Your task to perform on an android device: install app "ColorNote Notepad Notes" Image 0: 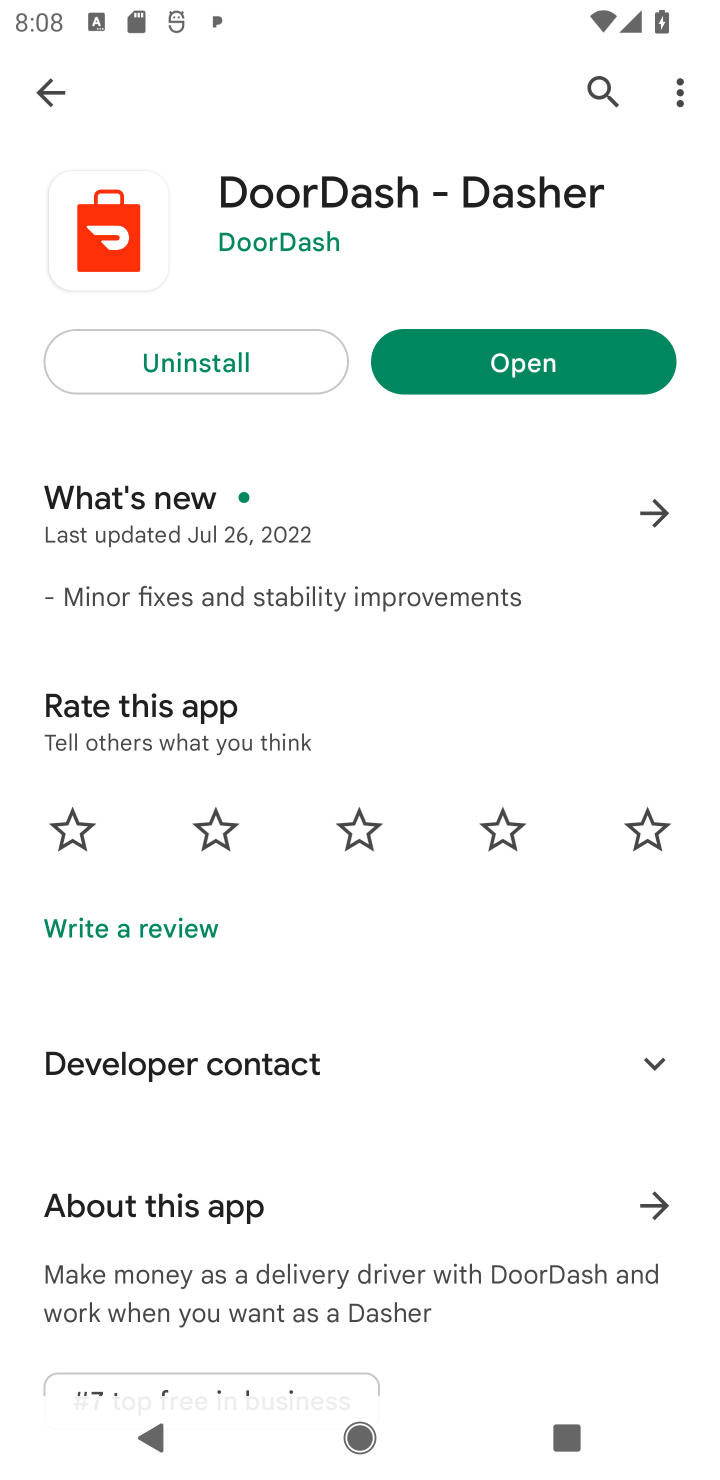
Step 0: press home button
Your task to perform on an android device: install app "ColorNote Notepad Notes" Image 1: 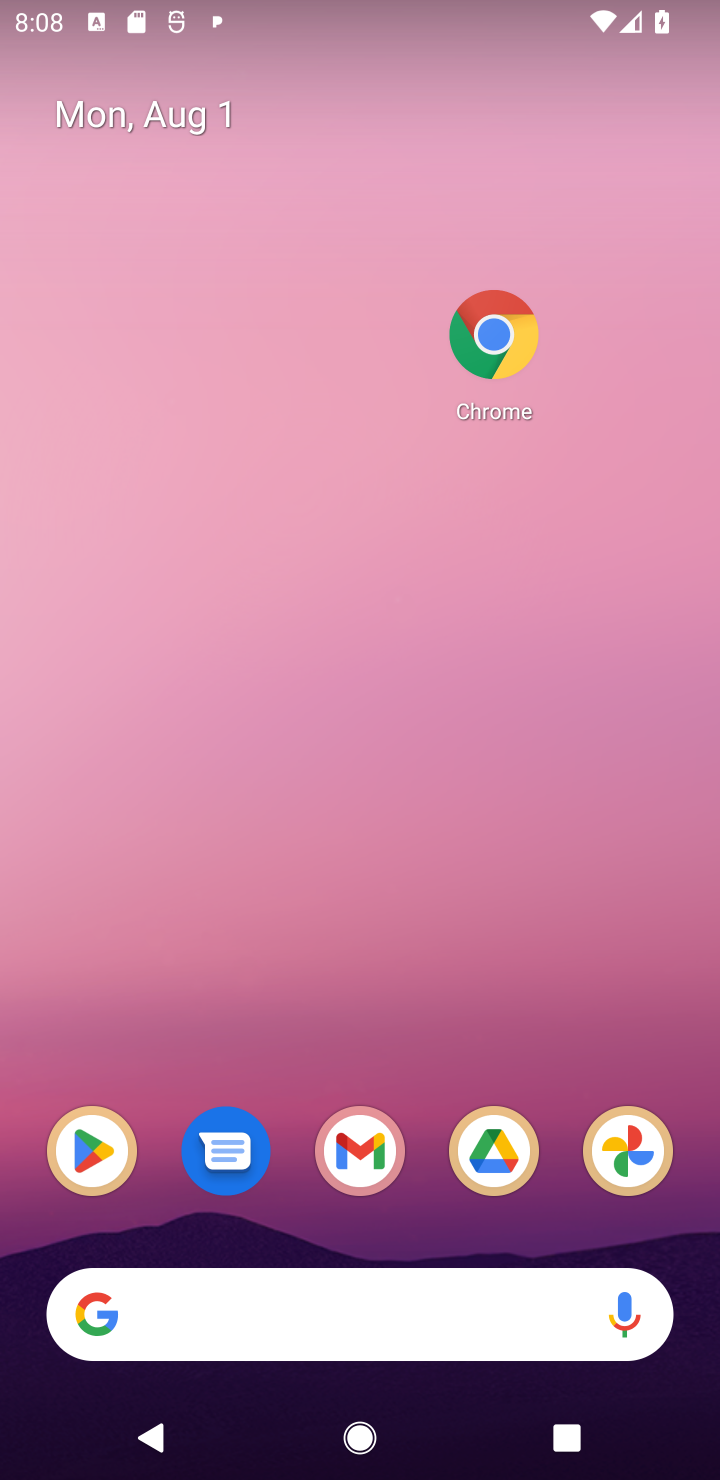
Step 1: click (81, 1147)
Your task to perform on an android device: install app "ColorNote Notepad Notes" Image 2: 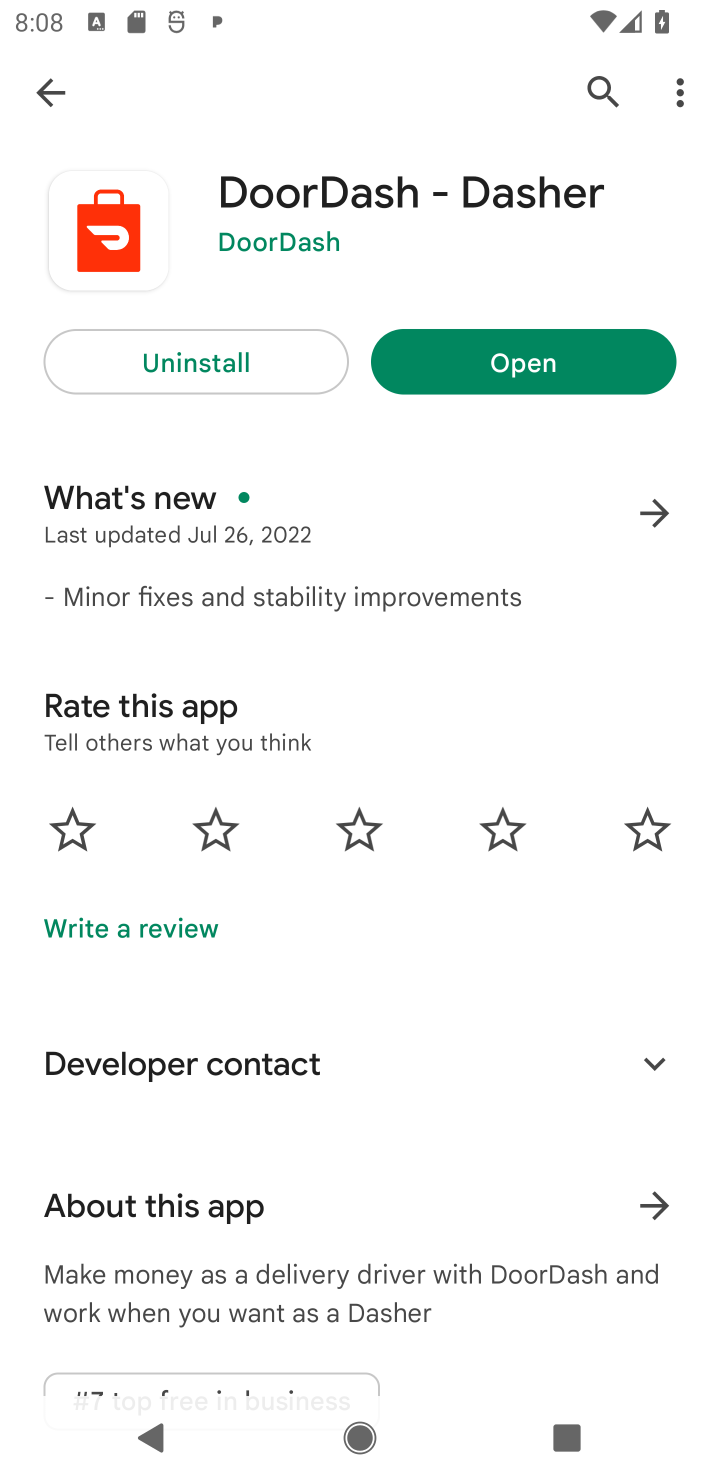
Step 2: click (638, 100)
Your task to perform on an android device: install app "ColorNote Notepad Notes" Image 3: 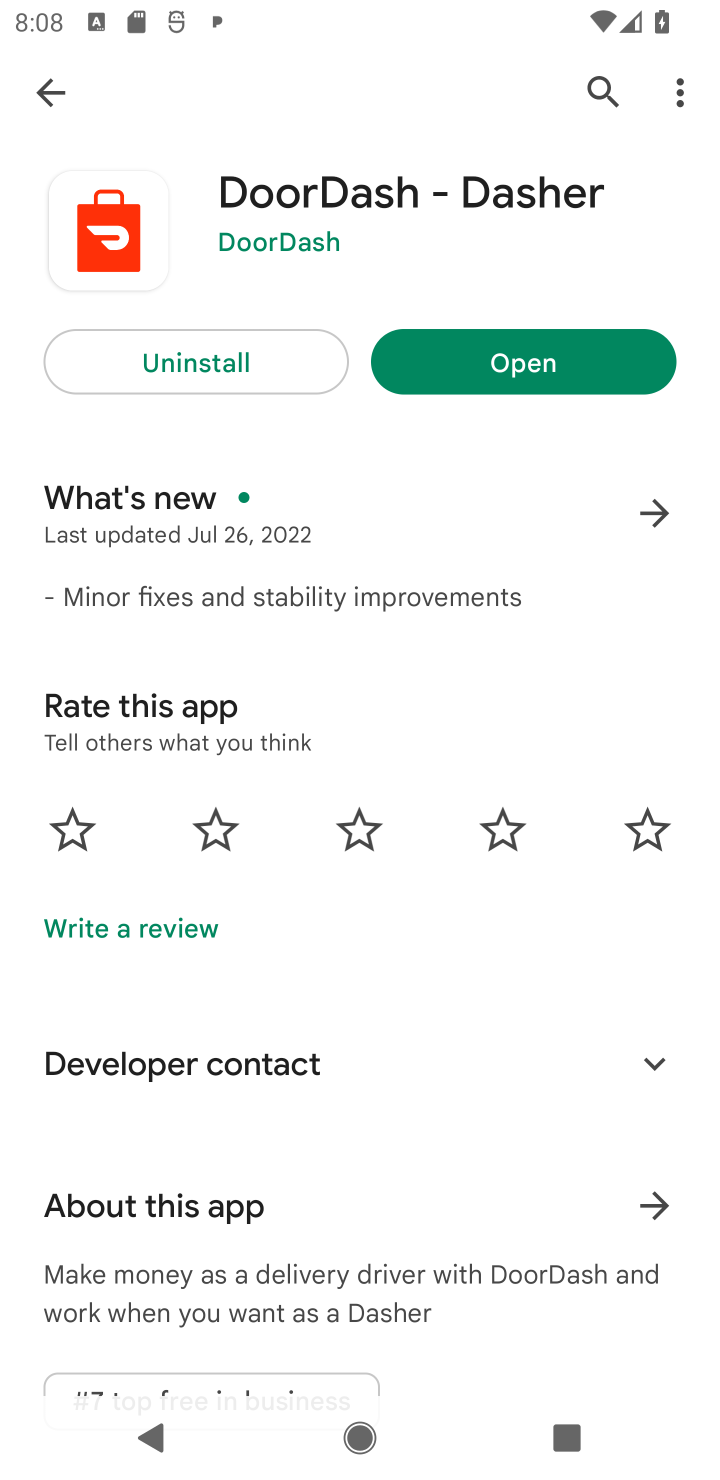
Step 3: click (600, 89)
Your task to perform on an android device: install app "ColorNote Notepad Notes" Image 4: 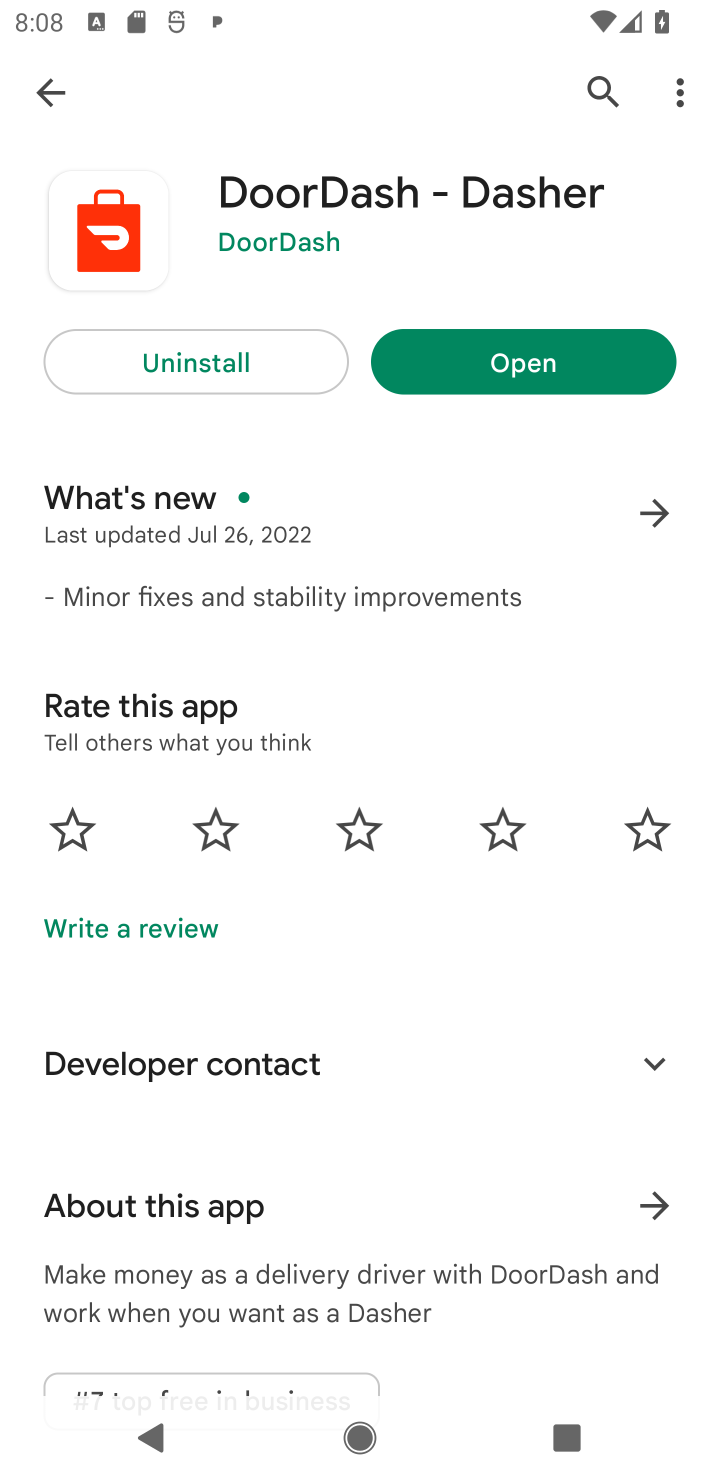
Step 4: click (599, 86)
Your task to perform on an android device: install app "ColorNote Notepad Notes" Image 5: 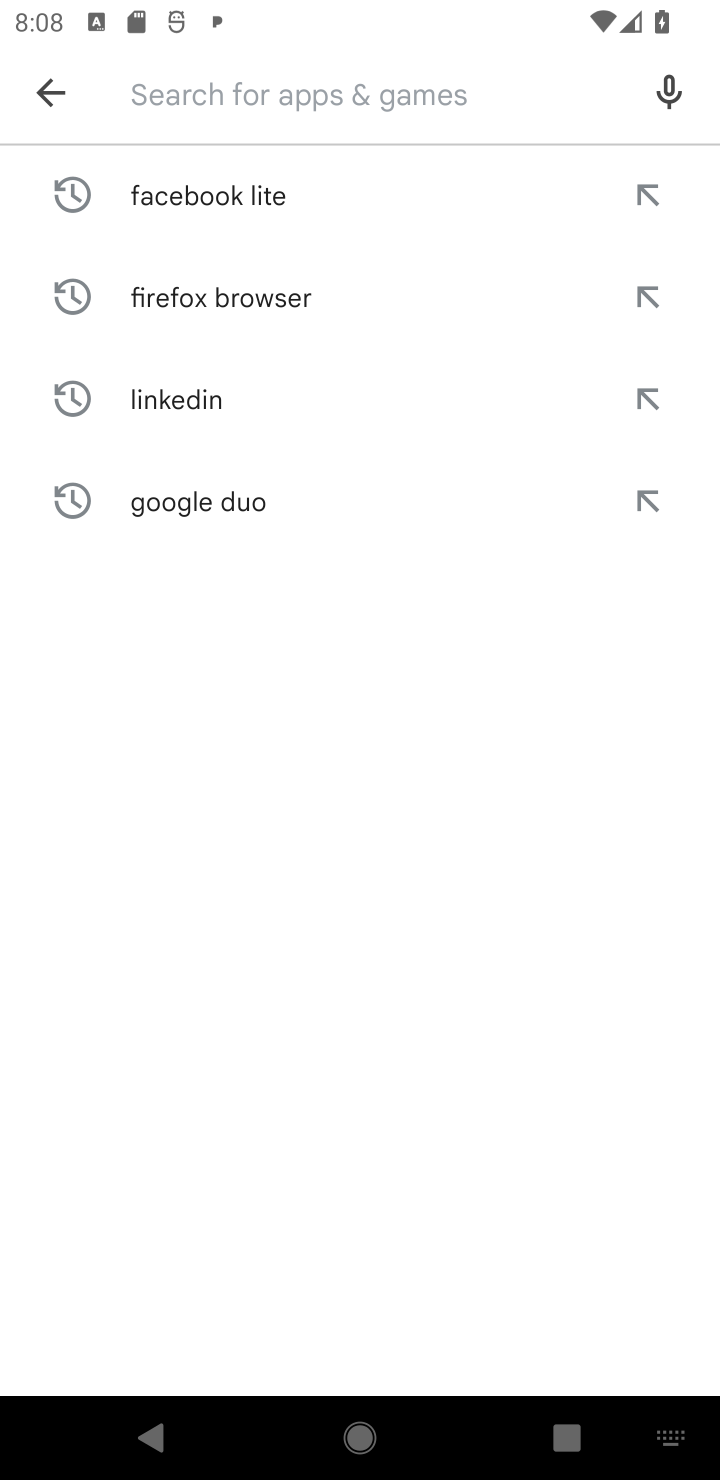
Step 5: click (436, 114)
Your task to perform on an android device: install app "ColorNote Notepad Notes" Image 6: 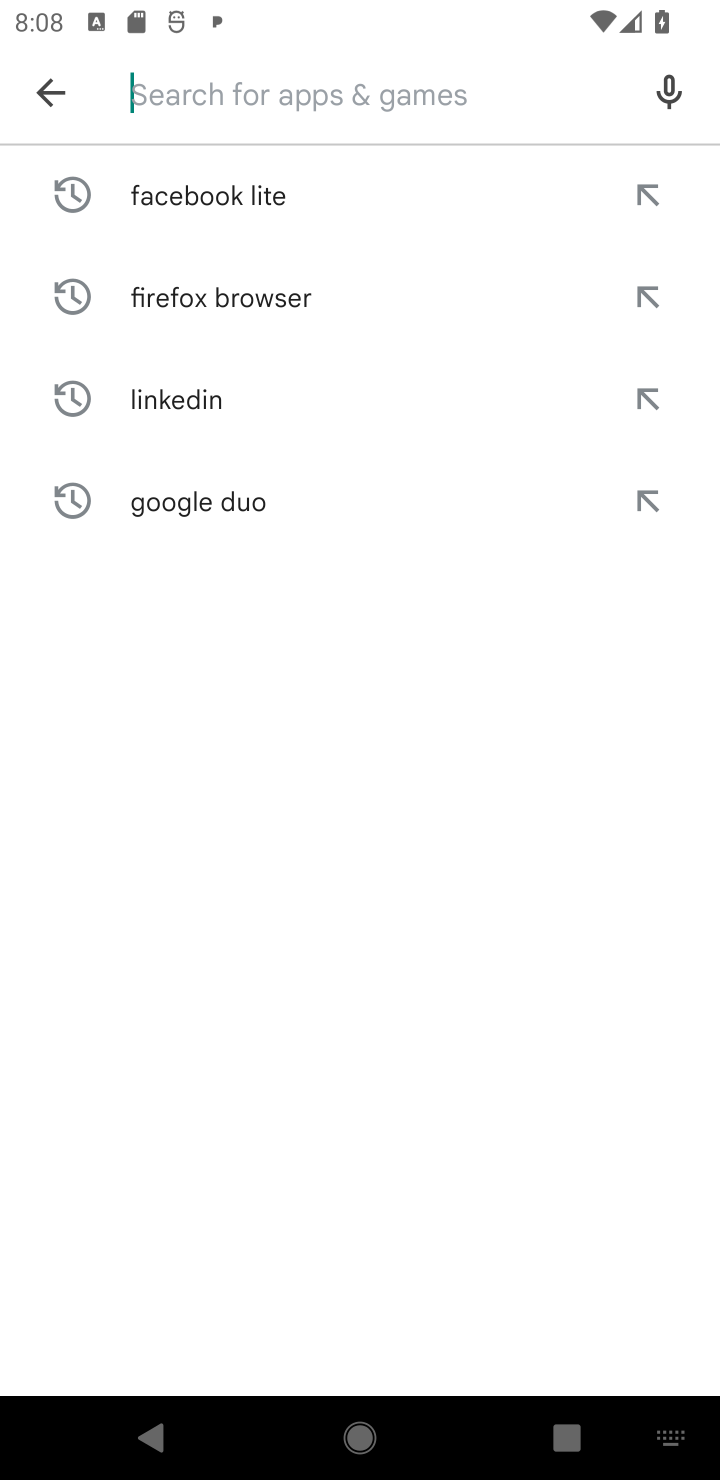
Step 6: type "ColorNote Notepad Notes"
Your task to perform on an android device: install app "ColorNote Notepad Notes" Image 7: 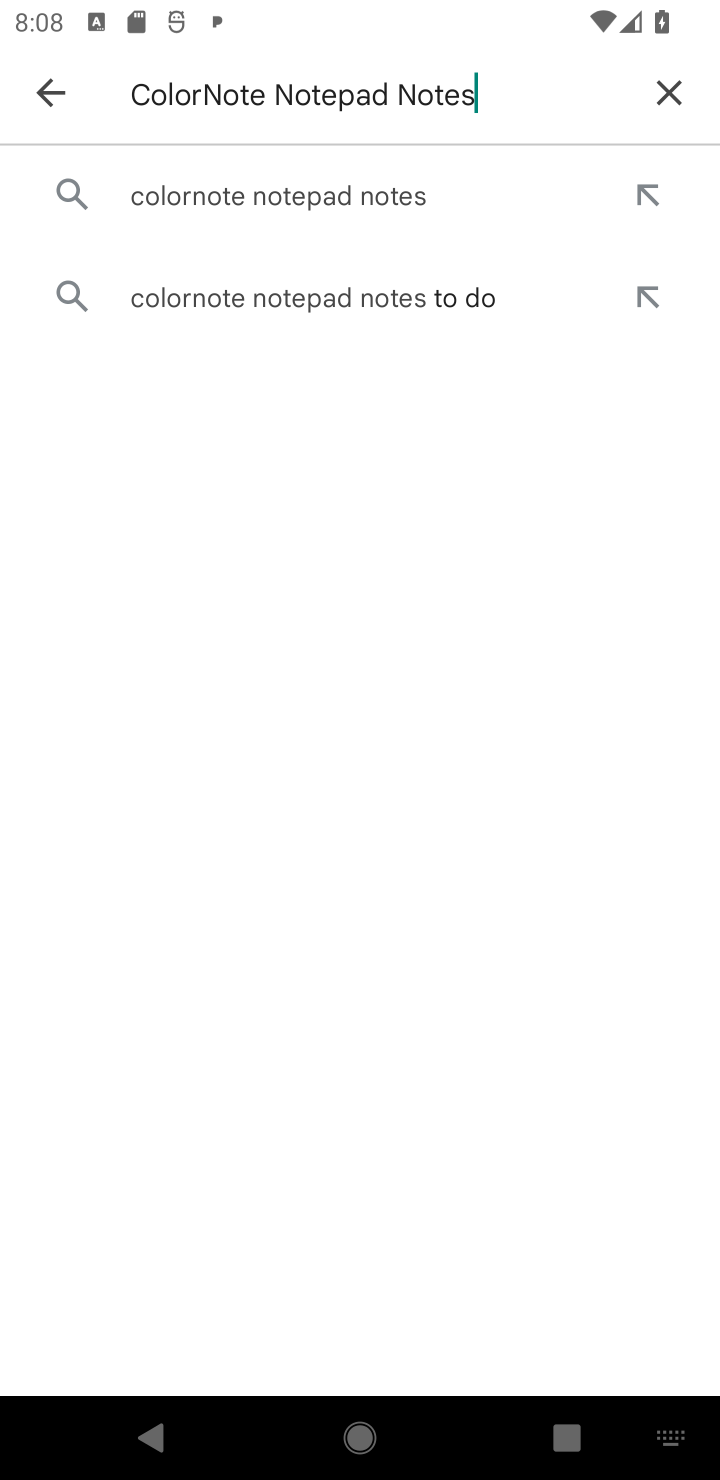
Step 7: click (216, 197)
Your task to perform on an android device: install app "ColorNote Notepad Notes" Image 8: 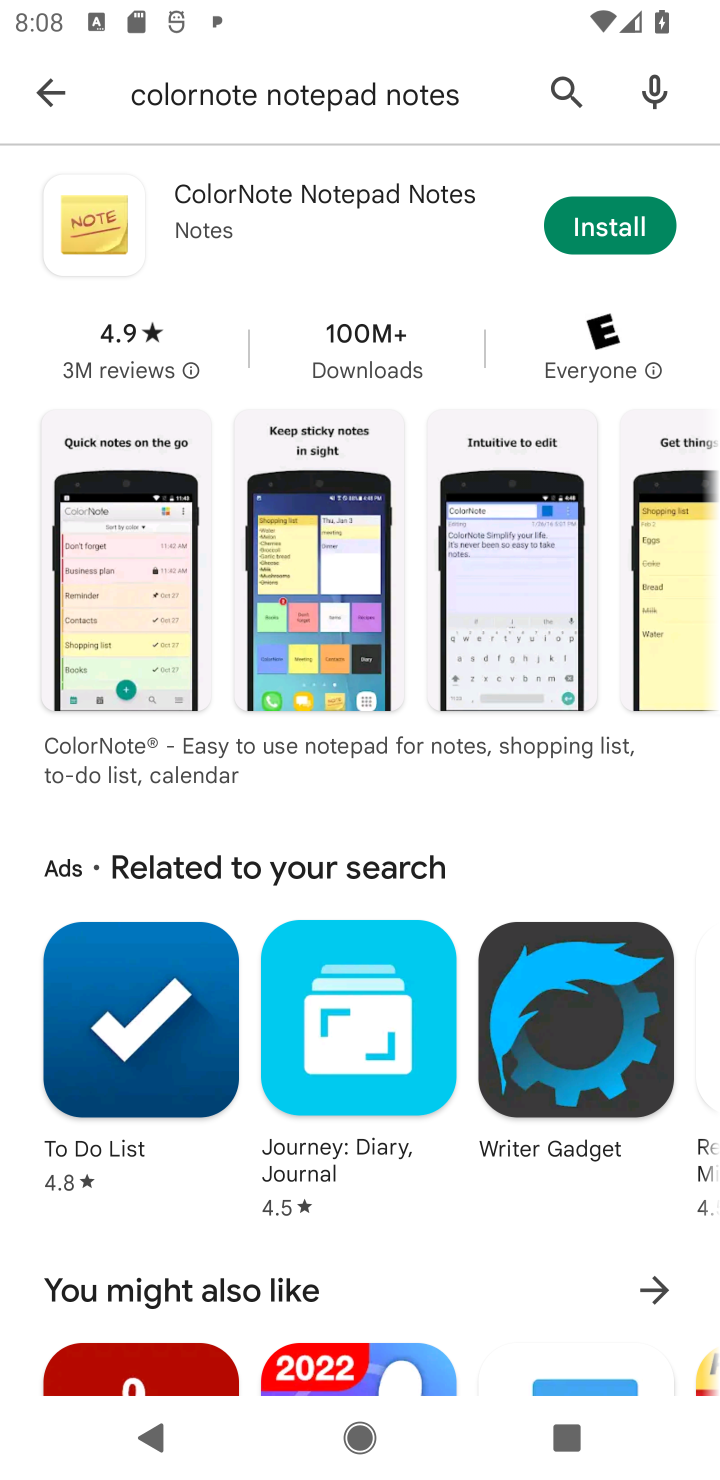
Step 8: click (552, 222)
Your task to perform on an android device: install app "ColorNote Notepad Notes" Image 9: 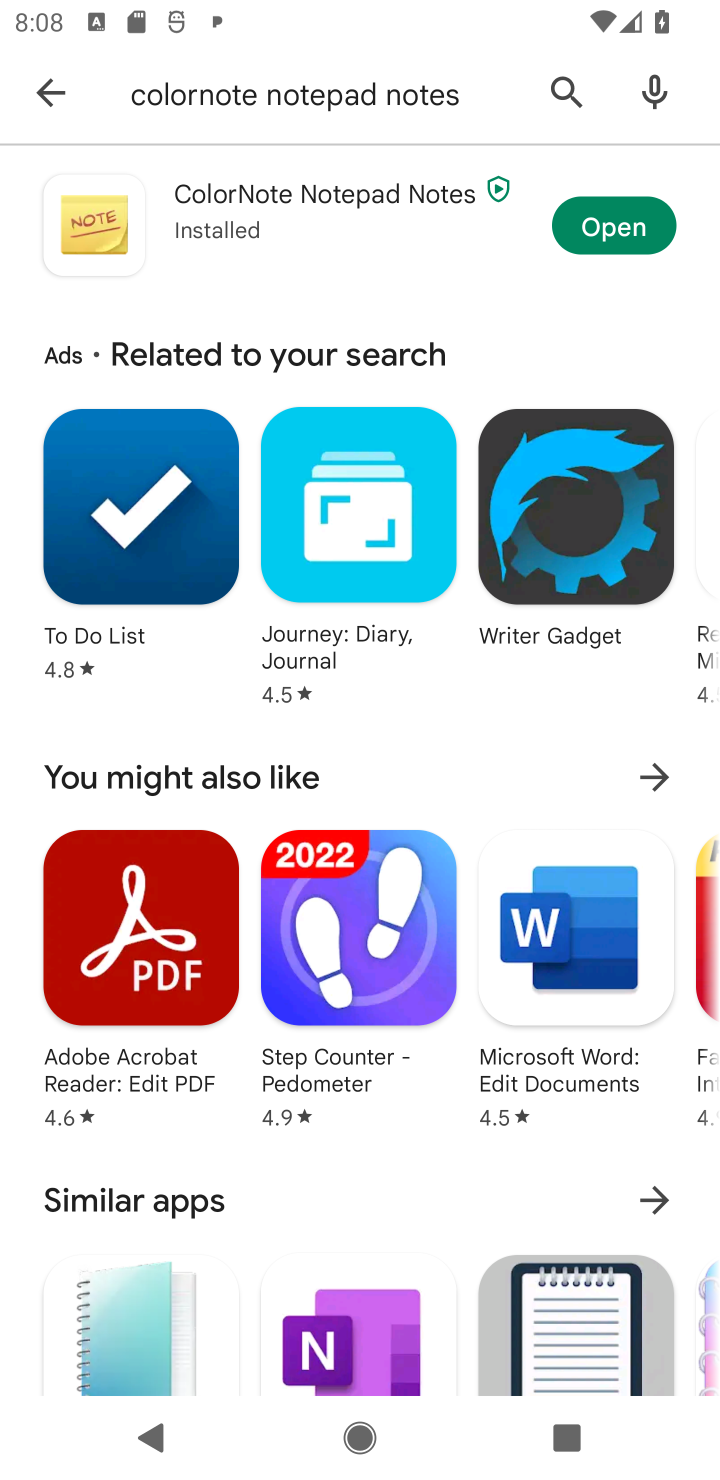
Step 9: task complete